Your task to perform on an android device: find photos in the google photos app Image 0: 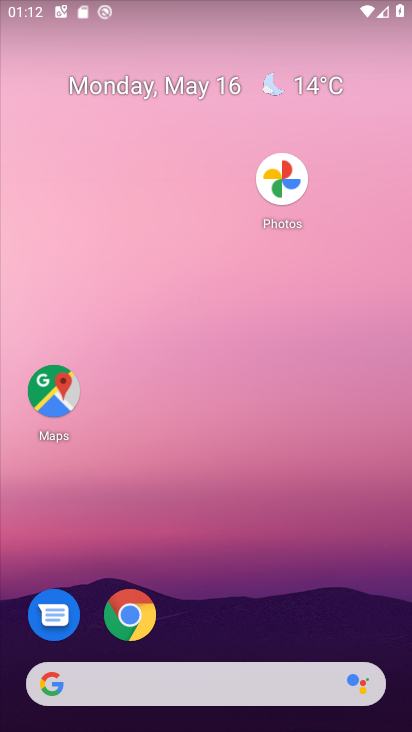
Step 0: drag from (245, 574) to (252, 171)
Your task to perform on an android device: find photos in the google photos app Image 1: 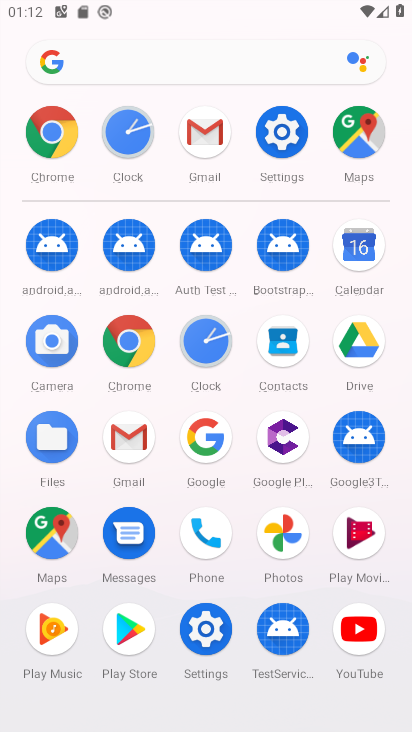
Step 1: click (293, 537)
Your task to perform on an android device: find photos in the google photos app Image 2: 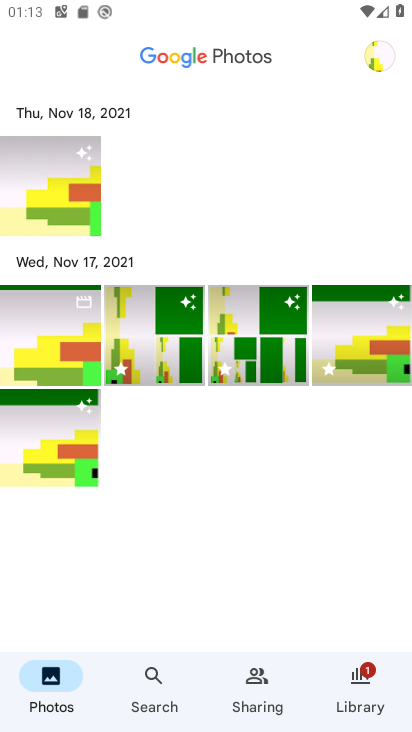
Step 2: task complete